Your task to perform on an android device: toggle priority inbox in the gmail app Image 0: 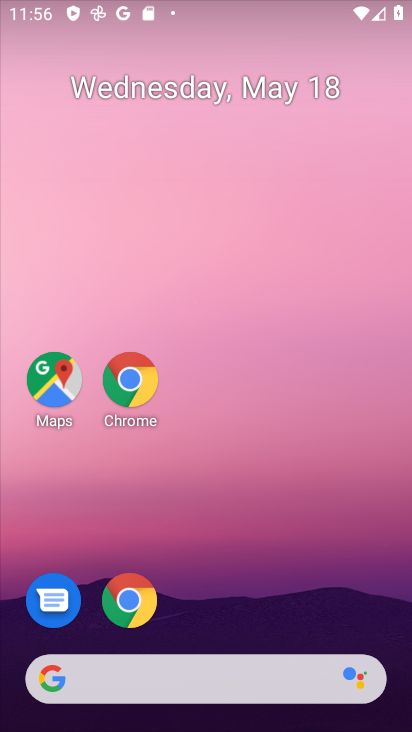
Step 0: drag from (271, 666) to (184, 61)
Your task to perform on an android device: toggle priority inbox in the gmail app Image 1: 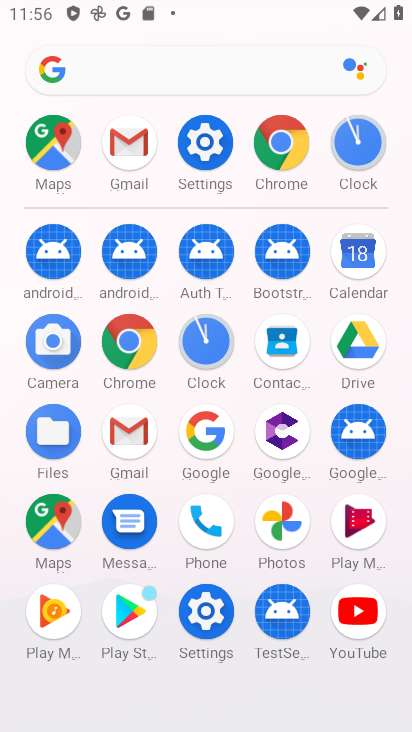
Step 1: click (129, 442)
Your task to perform on an android device: toggle priority inbox in the gmail app Image 2: 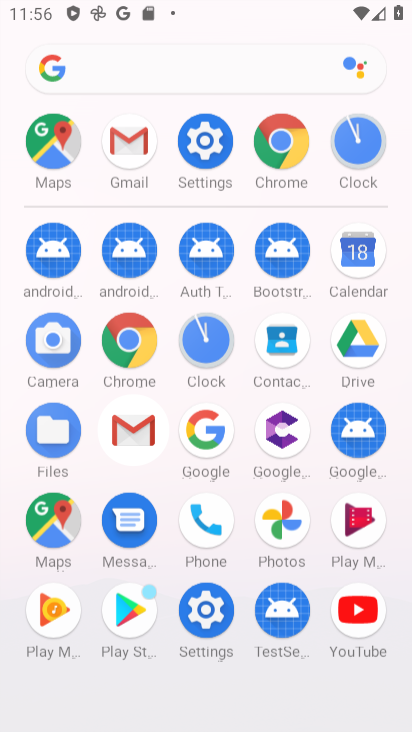
Step 2: click (129, 442)
Your task to perform on an android device: toggle priority inbox in the gmail app Image 3: 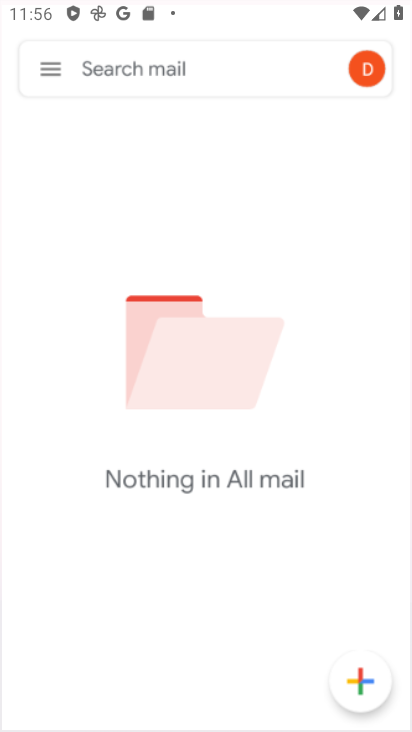
Step 3: click (129, 442)
Your task to perform on an android device: toggle priority inbox in the gmail app Image 4: 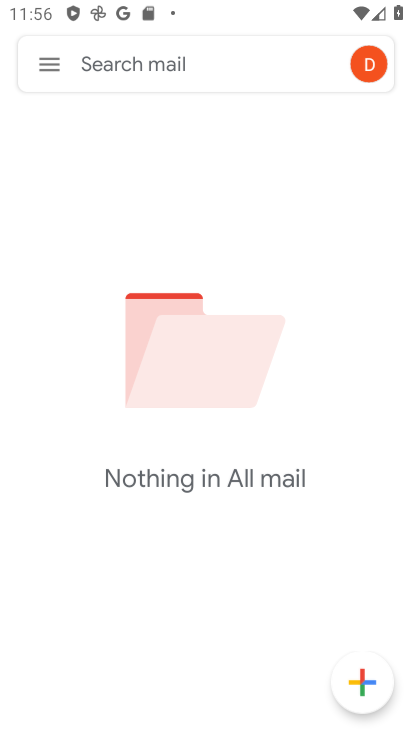
Step 4: click (131, 444)
Your task to perform on an android device: toggle priority inbox in the gmail app Image 5: 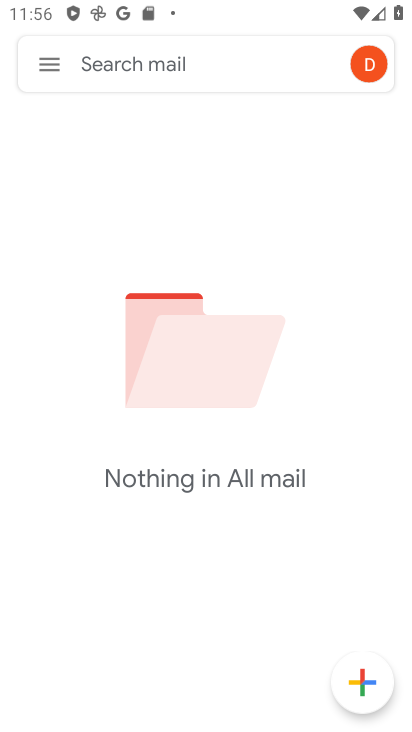
Step 5: click (41, 66)
Your task to perform on an android device: toggle priority inbox in the gmail app Image 6: 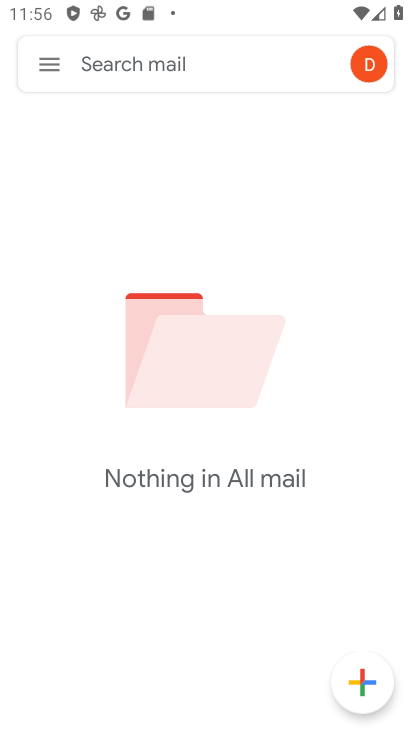
Step 6: click (54, 62)
Your task to perform on an android device: toggle priority inbox in the gmail app Image 7: 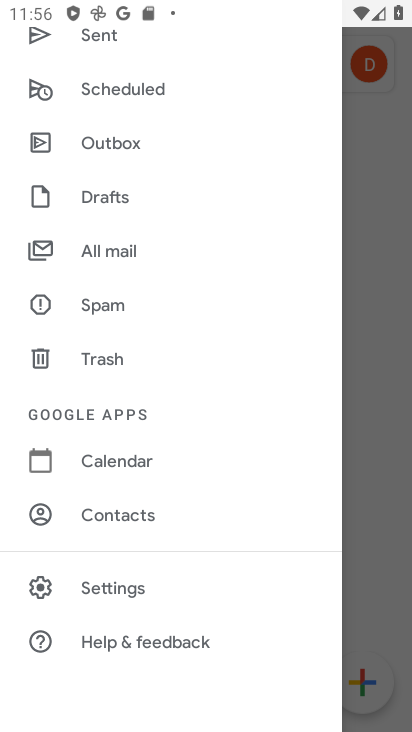
Step 7: click (113, 585)
Your task to perform on an android device: toggle priority inbox in the gmail app Image 8: 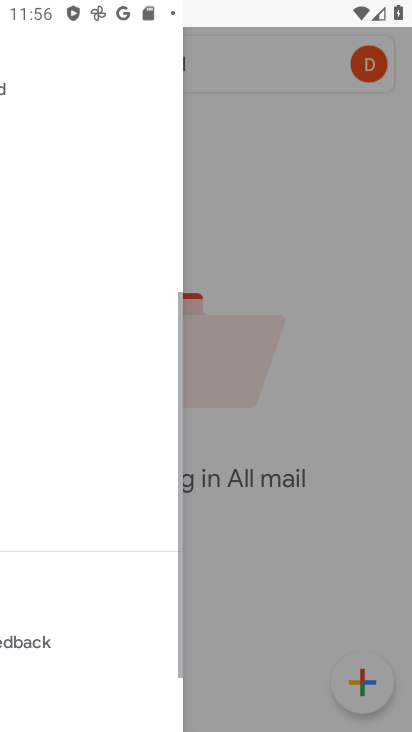
Step 8: click (114, 585)
Your task to perform on an android device: toggle priority inbox in the gmail app Image 9: 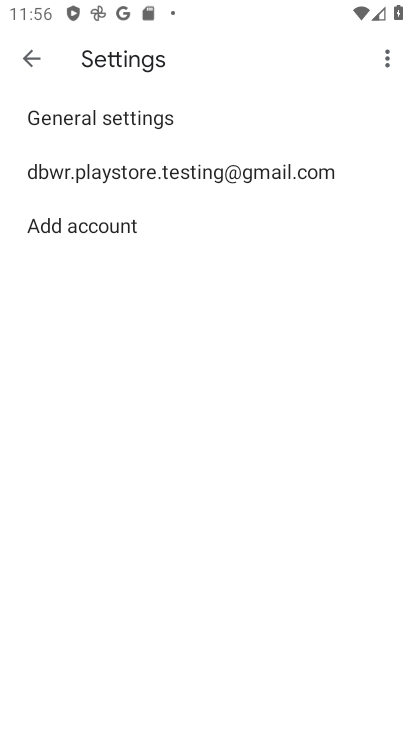
Step 9: click (113, 183)
Your task to perform on an android device: toggle priority inbox in the gmail app Image 10: 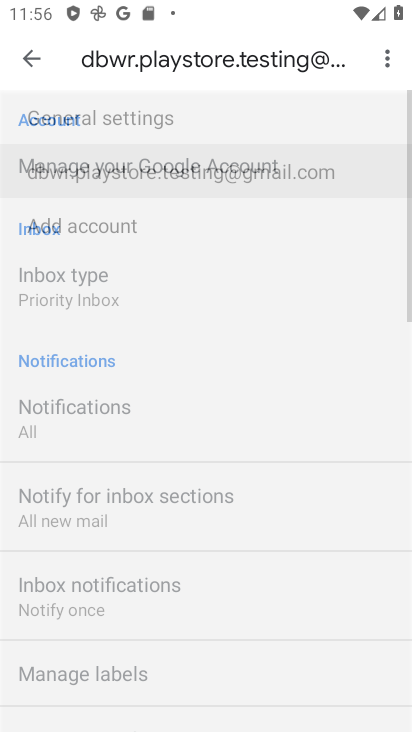
Step 10: click (116, 171)
Your task to perform on an android device: toggle priority inbox in the gmail app Image 11: 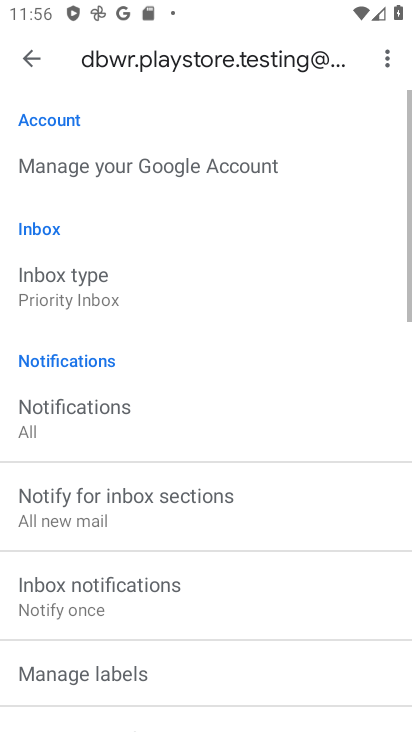
Step 11: click (116, 171)
Your task to perform on an android device: toggle priority inbox in the gmail app Image 12: 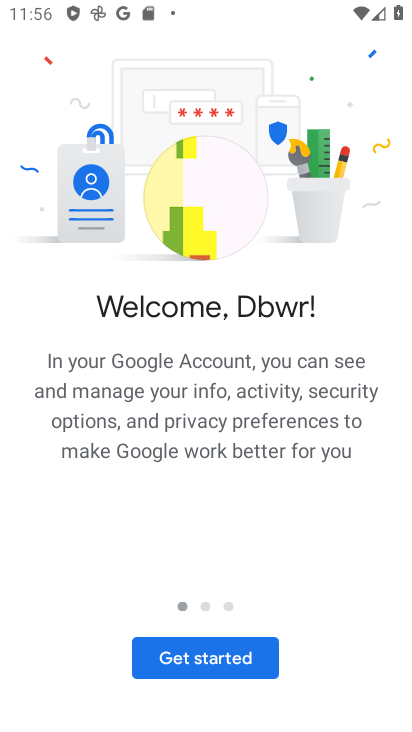
Step 12: click (209, 660)
Your task to perform on an android device: toggle priority inbox in the gmail app Image 13: 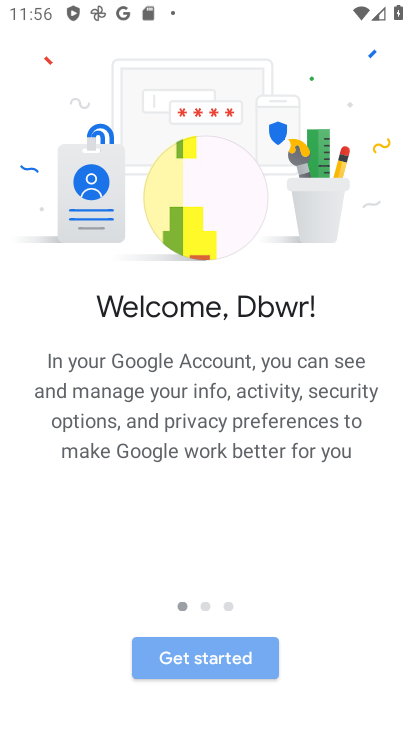
Step 13: click (212, 662)
Your task to perform on an android device: toggle priority inbox in the gmail app Image 14: 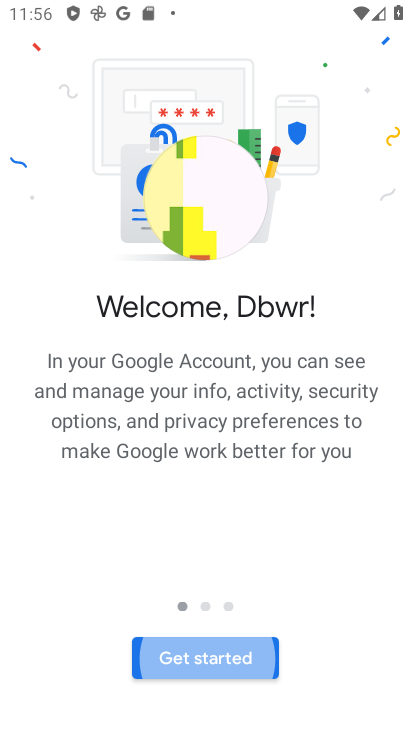
Step 14: click (224, 662)
Your task to perform on an android device: toggle priority inbox in the gmail app Image 15: 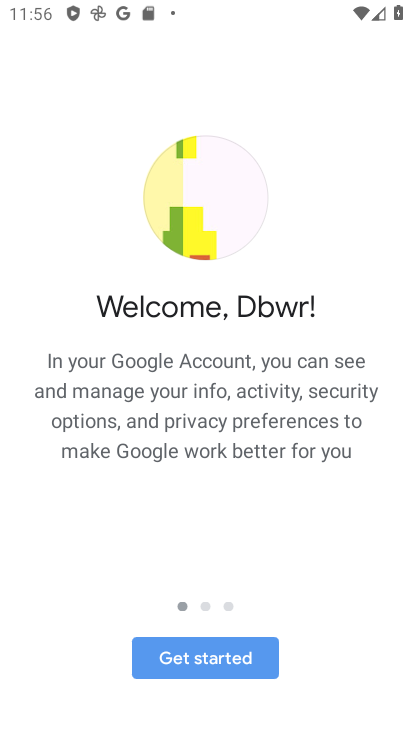
Step 15: click (225, 656)
Your task to perform on an android device: toggle priority inbox in the gmail app Image 16: 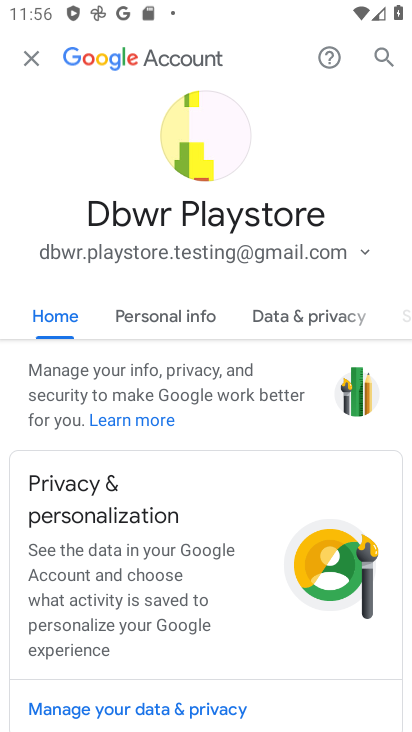
Step 16: click (26, 58)
Your task to perform on an android device: toggle priority inbox in the gmail app Image 17: 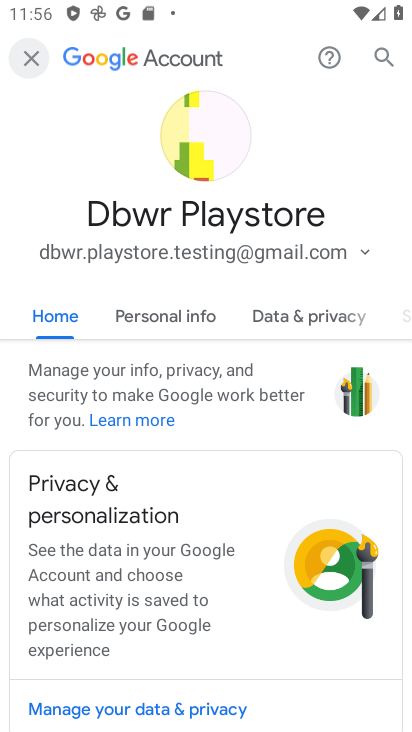
Step 17: click (26, 57)
Your task to perform on an android device: toggle priority inbox in the gmail app Image 18: 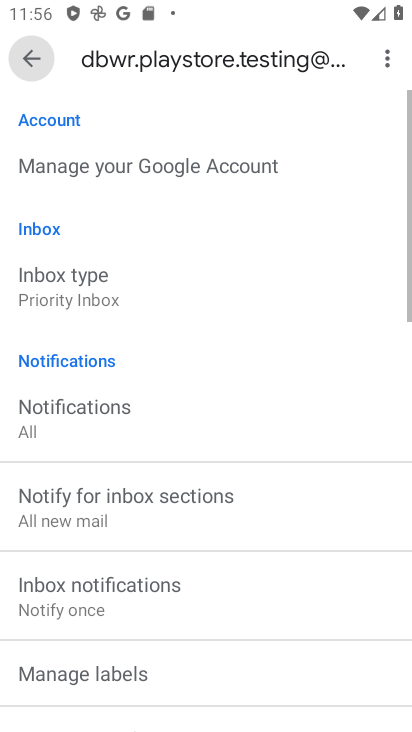
Step 18: click (30, 56)
Your task to perform on an android device: toggle priority inbox in the gmail app Image 19: 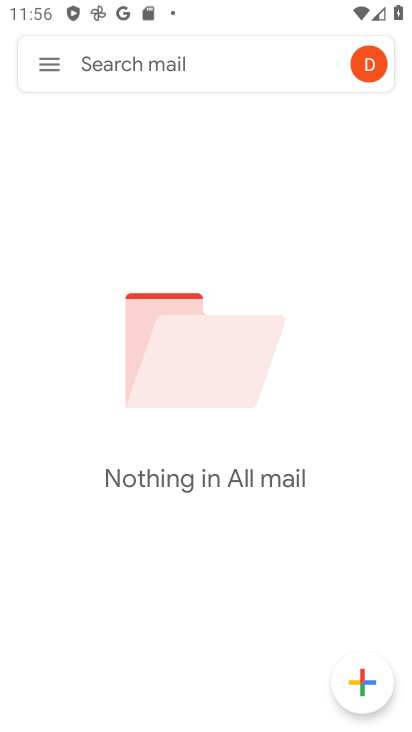
Step 19: click (61, 67)
Your task to perform on an android device: toggle priority inbox in the gmail app Image 20: 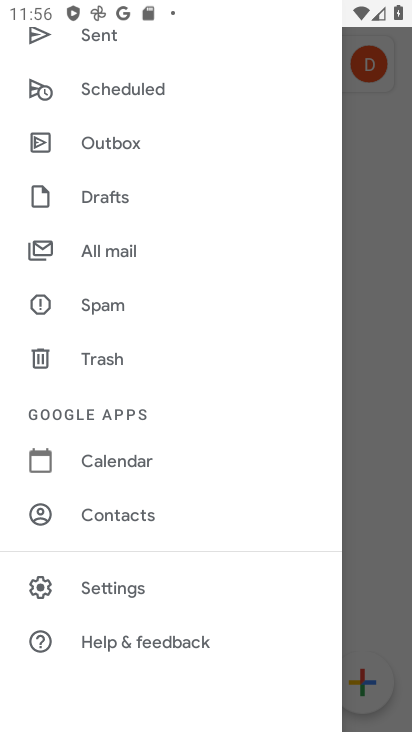
Step 20: click (40, 246)
Your task to perform on an android device: toggle priority inbox in the gmail app Image 21: 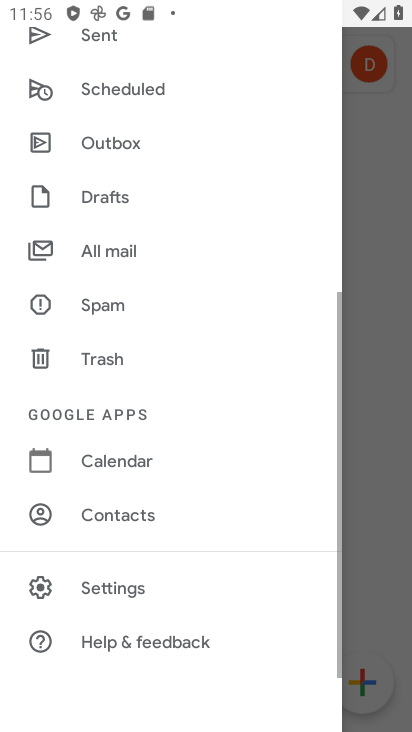
Step 21: click (40, 246)
Your task to perform on an android device: toggle priority inbox in the gmail app Image 22: 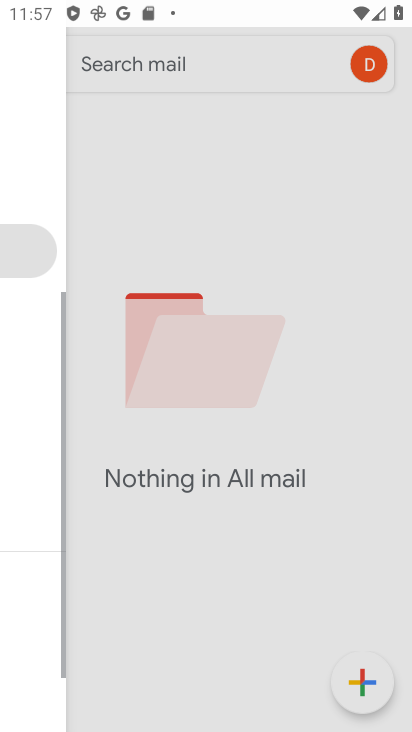
Step 22: click (40, 246)
Your task to perform on an android device: toggle priority inbox in the gmail app Image 23: 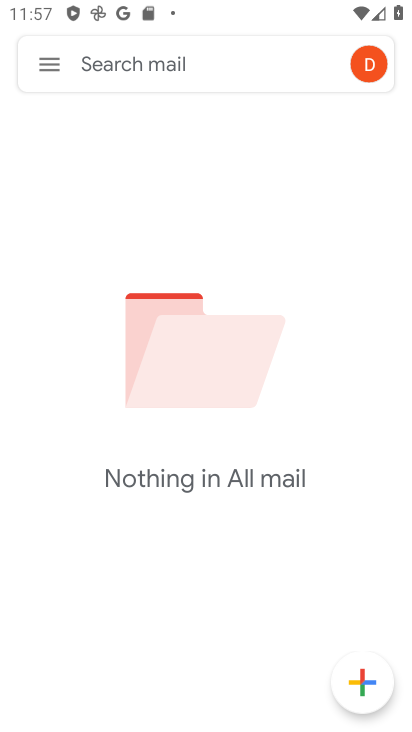
Step 23: click (43, 62)
Your task to perform on an android device: toggle priority inbox in the gmail app Image 24: 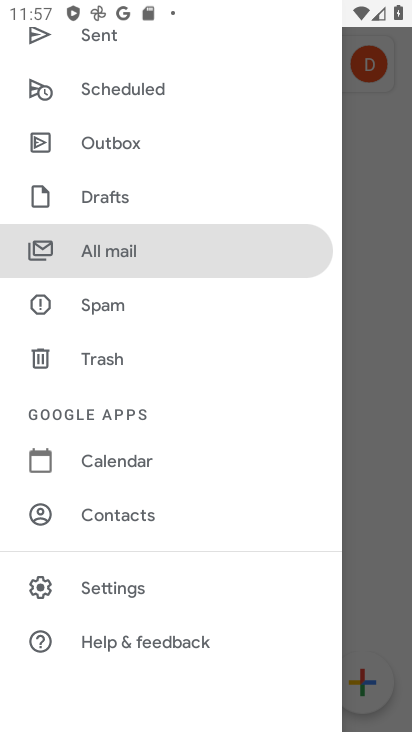
Step 24: click (106, 585)
Your task to perform on an android device: toggle priority inbox in the gmail app Image 25: 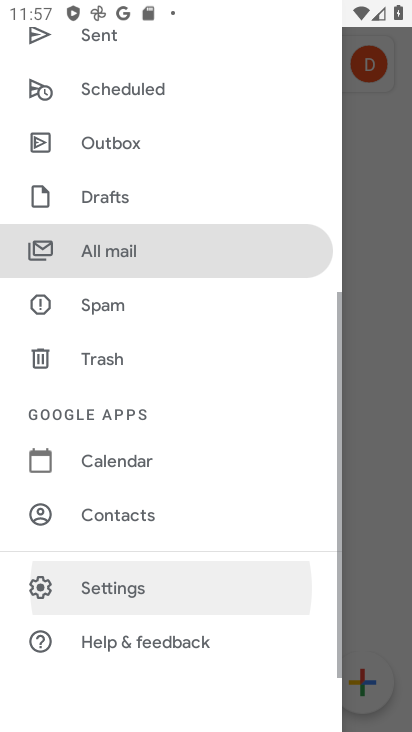
Step 25: click (106, 585)
Your task to perform on an android device: toggle priority inbox in the gmail app Image 26: 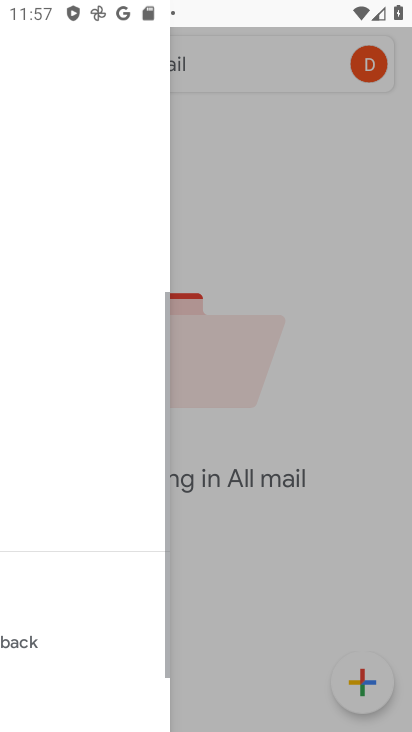
Step 26: click (106, 585)
Your task to perform on an android device: toggle priority inbox in the gmail app Image 27: 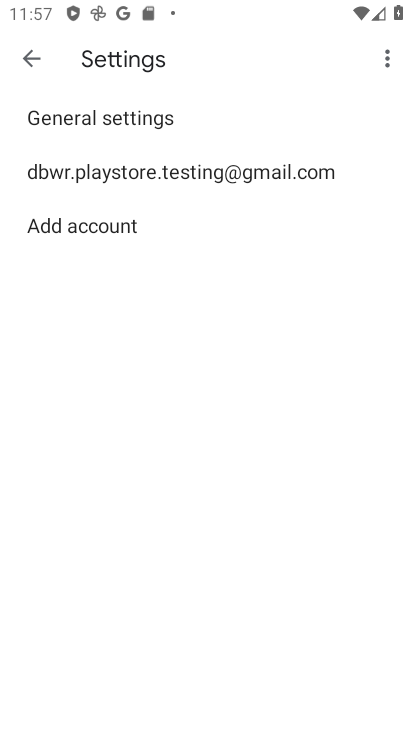
Step 27: click (118, 165)
Your task to perform on an android device: toggle priority inbox in the gmail app Image 28: 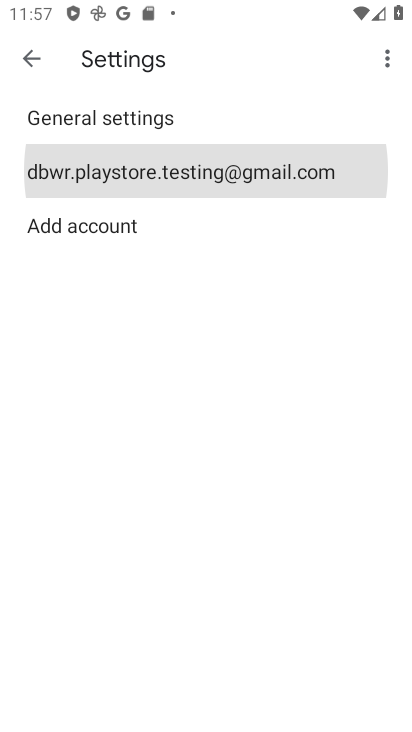
Step 28: click (118, 165)
Your task to perform on an android device: toggle priority inbox in the gmail app Image 29: 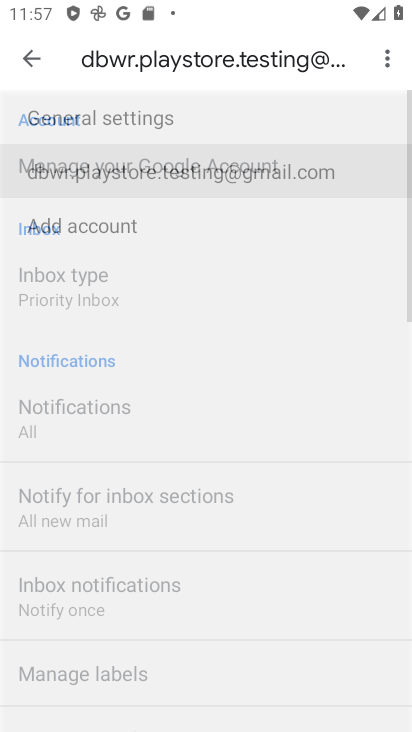
Step 29: click (118, 178)
Your task to perform on an android device: toggle priority inbox in the gmail app Image 30: 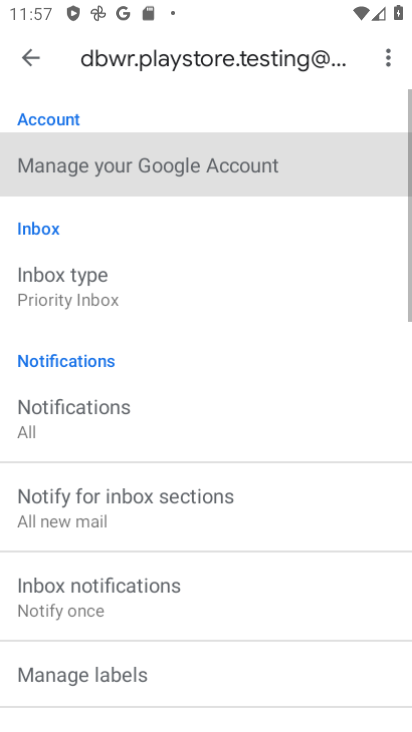
Step 30: click (120, 181)
Your task to perform on an android device: toggle priority inbox in the gmail app Image 31: 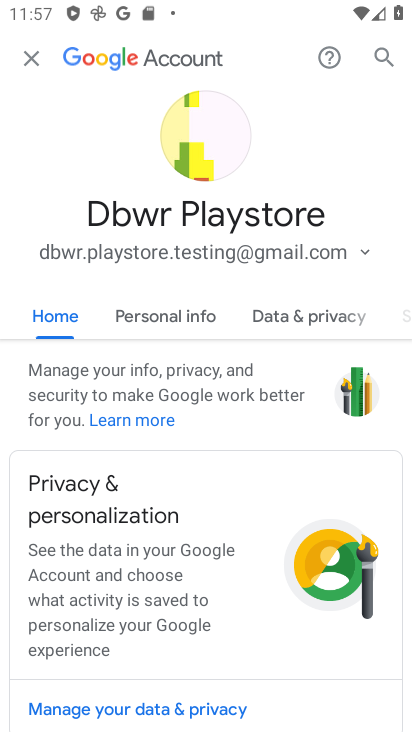
Step 31: click (34, 49)
Your task to perform on an android device: toggle priority inbox in the gmail app Image 32: 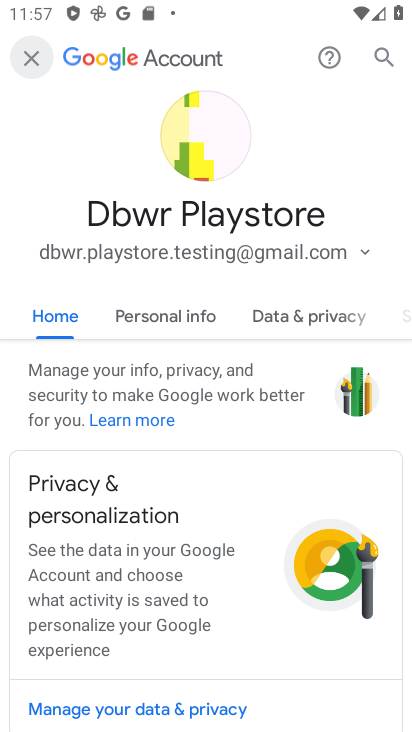
Step 32: click (34, 49)
Your task to perform on an android device: toggle priority inbox in the gmail app Image 33: 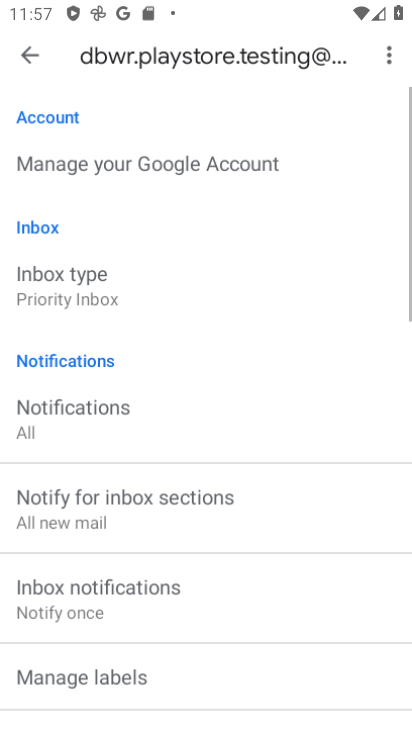
Step 33: click (30, 45)
Your task to perform on an android device: toggle priority inbox in the gmail app Image 34: 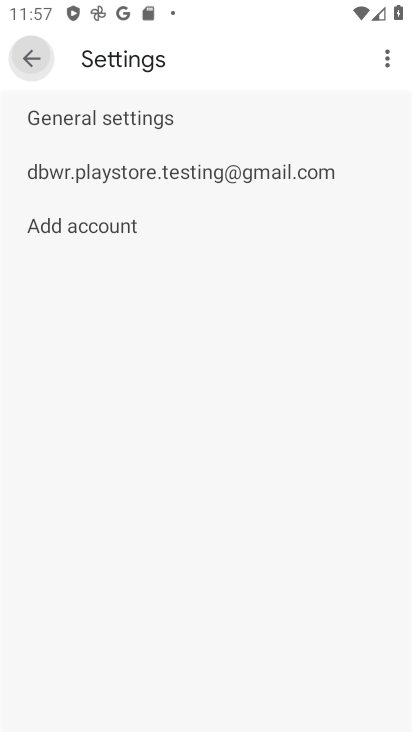
Step 34: click (30, 45)
Your task to perform on an android device: toggle priority inbox in the gmail app Image 35: 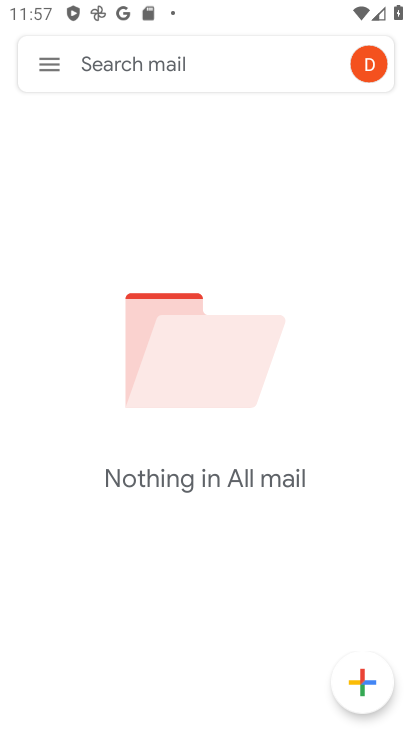
Step 35: click (36, 62)
Your task to perform on an android device: toggle priority inbox in the gmail app Image 36: 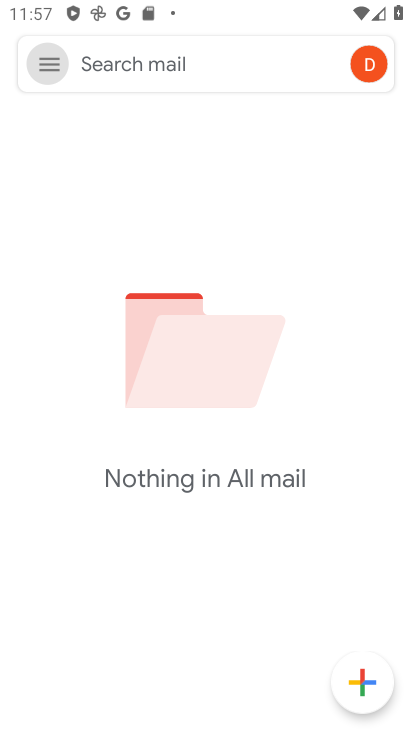
Step 36: click (43, 63)
Your task to perform on an android device: toggle priority inbox in the gmail app Image 37: 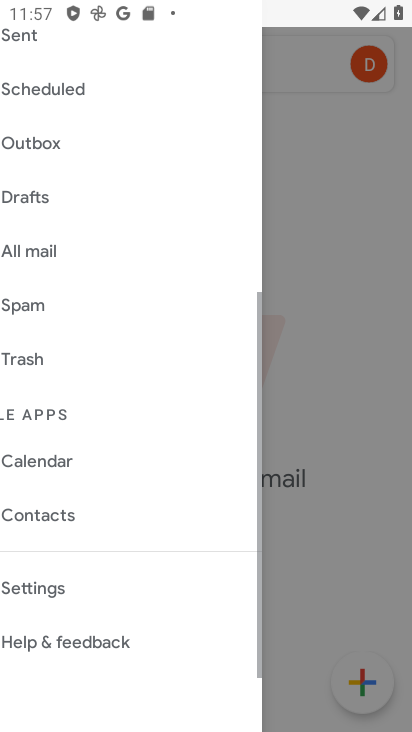
Step 37: click (48, 63)
Your task to perform on an android device: toggle priority inbox in the gmail app Image 38: 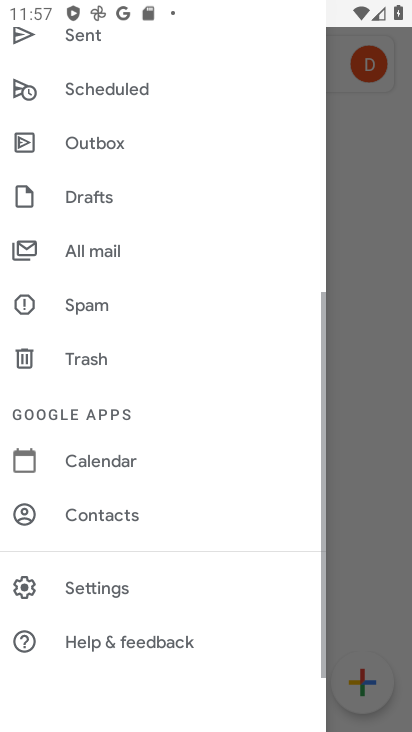
Step 38: click (49, 62)
Your task to perform on an android device: toggle priority inbox in the gmail app Image 39: 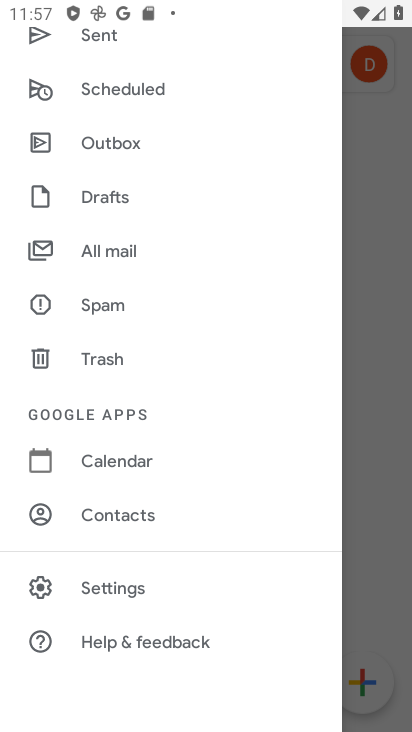
Step 39: click (113, 580)
Your task to perform on an android device: toggle priority inbox in the gmail app Image 40: 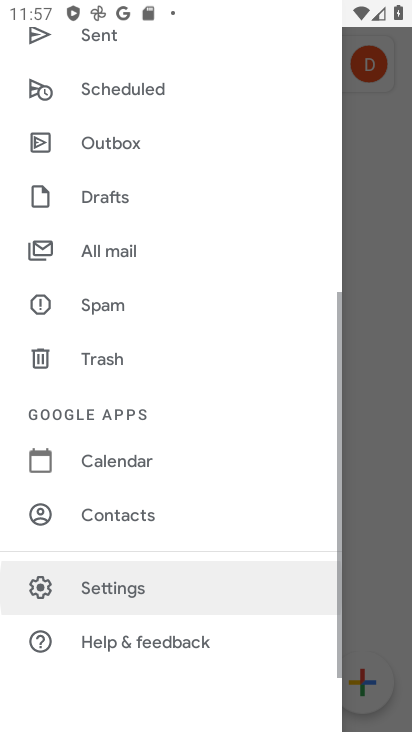
Step 40: click (121, 593)
Your task to perform on an android device: toggle priority inbox in the gmail app Image 41: 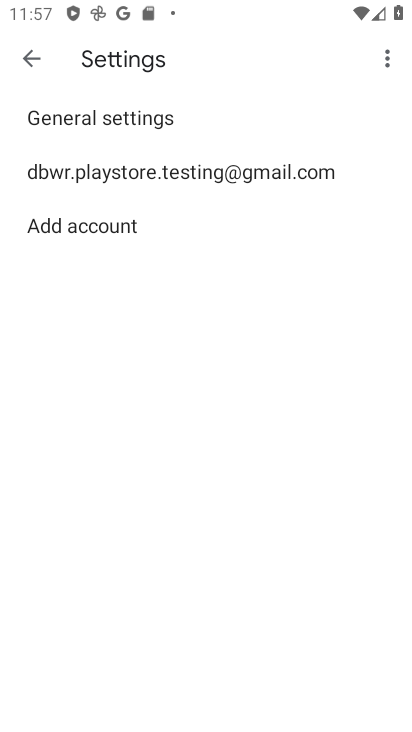
Step 41: click (130, 168)
Your task to perform on an android device: toggle priority inbox in the gmail app Image 42: 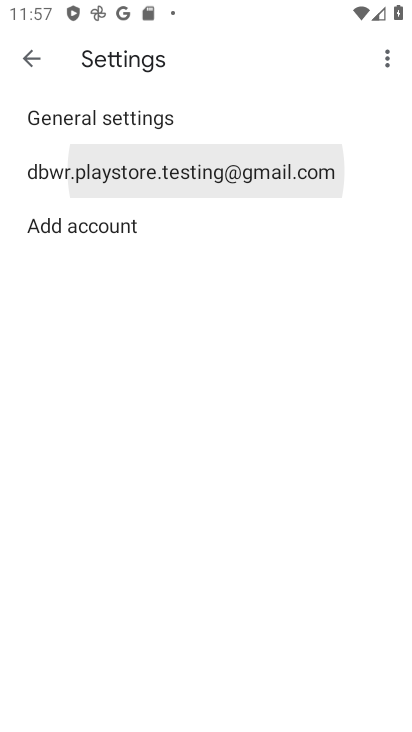
Step 42: click (132, 168)
Your task to perform on an android device: toggle priority inbox in the gmail app Image 43: 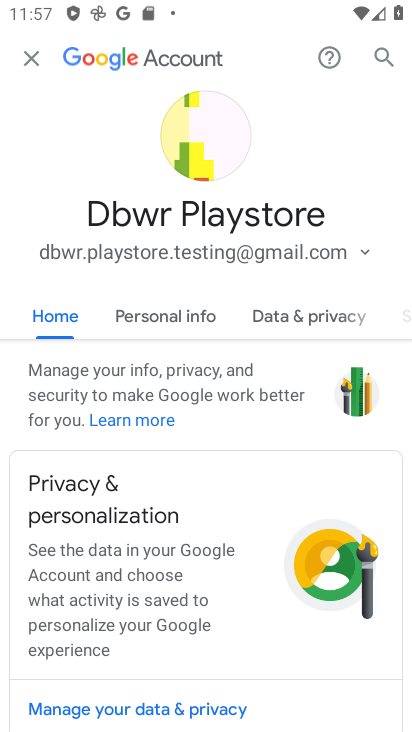
Step 43: task complete